Your task to perform on an android device: Open settings on Google Maps Image 0: 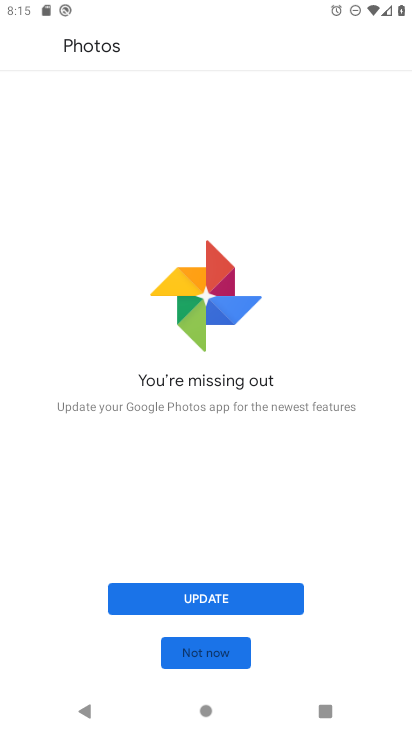
Step 0: press home button
Your task to perform on an android device: Open settings on Google Maps Image 1: 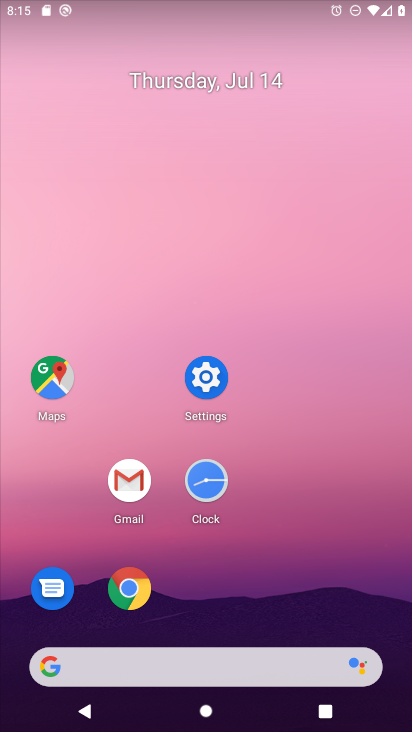
Step 1: click (32, 363)
Your task to perform on an android device: Open settings on Google Maps Image 2: 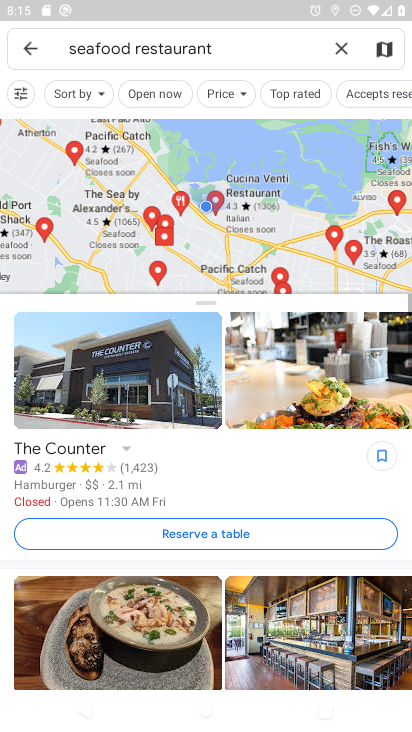
Step 2: click (24, 45)
Your task to perform on an android device: Open settings on Google Maps Image 3: 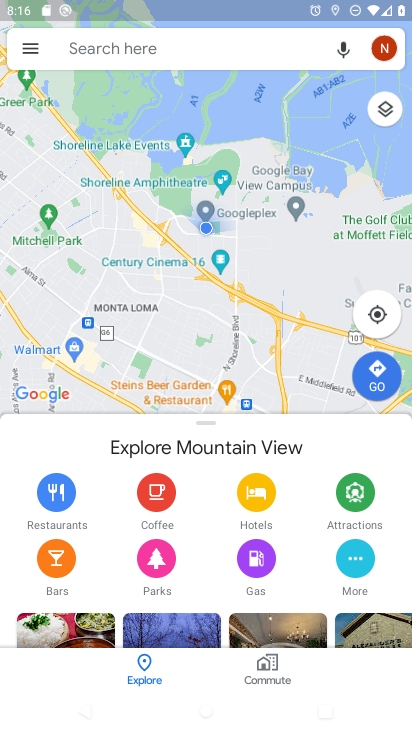
Step 3: click (34, 49)
Your task to perform on an android device: Open settings on Google Maps Image 4: 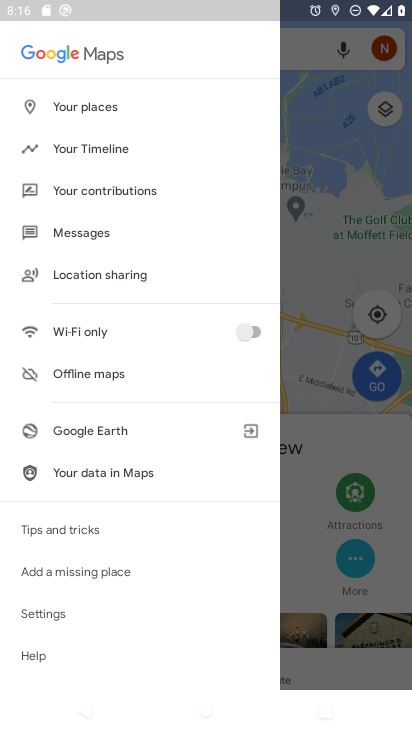
Step 4: click (37, 613)
Your task to perform on an android device: Open settings on Google Maps Image 5: 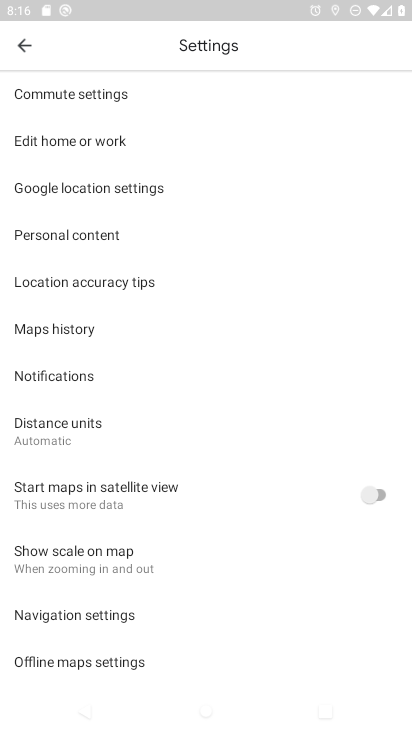
Step 5: task complete